Your task to perform on an android device: Go to Yahoo.com Image 0: 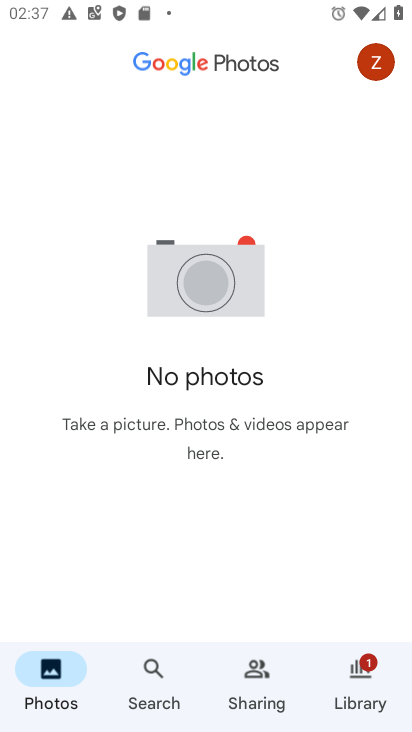
Step 0: press home button
Your task to perform on an android device: Go to Yahoo.com Image 1: 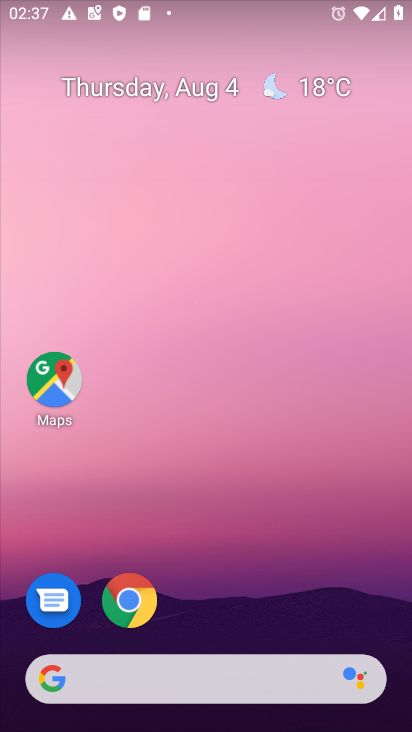
Step 1: click (126, 609)
Your task to perform on an android device: Go to Yahoo.com Image 2: 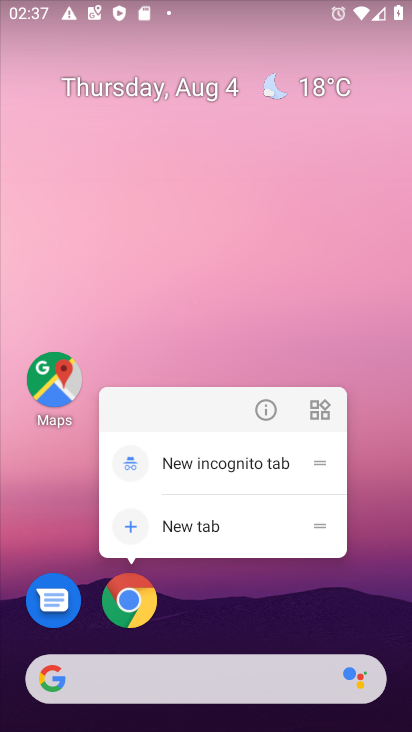
Step 2: click (134, 602)
Your task to perform on an android device: Go to Yahoo.com Image 3: 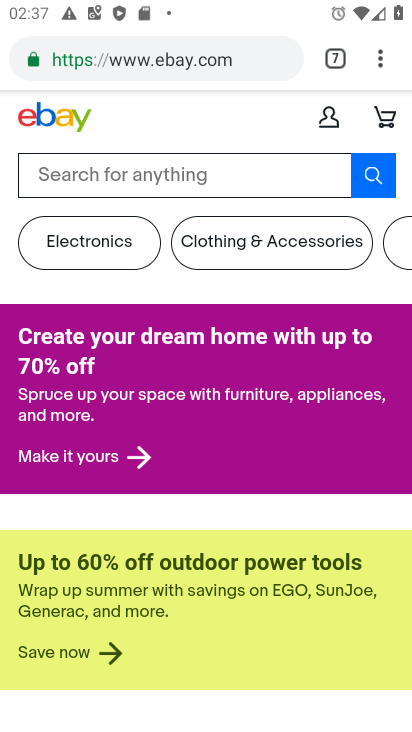
Step 3: drag from (383, 59) to (223, 188)
Your task to perform on an android device: Go to Yahoo.com Image 4: 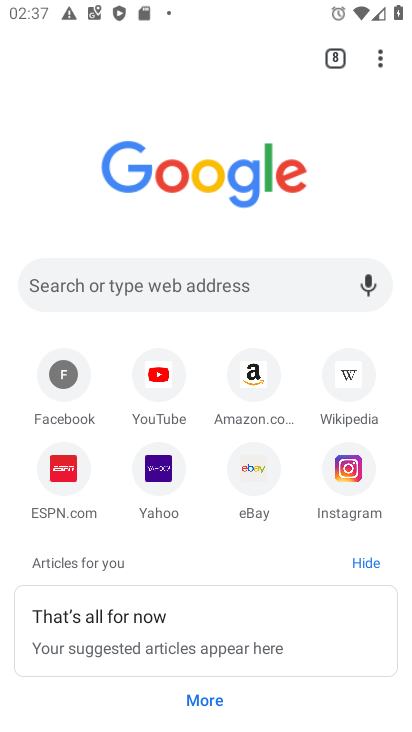
Step 4: click (159, 474)
Your task to perform on an android device: Go to Yahoo.com Image 5: 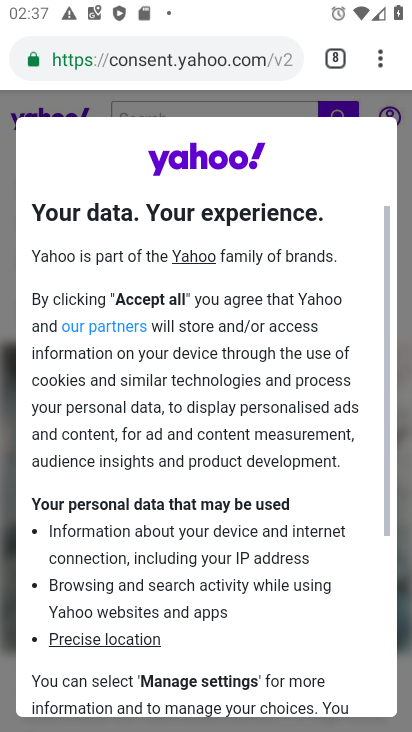
Step 5: drag from (237, 629) to (333, 199)
Your task to perform on an android device: Go to Yahoo.com Image 6: 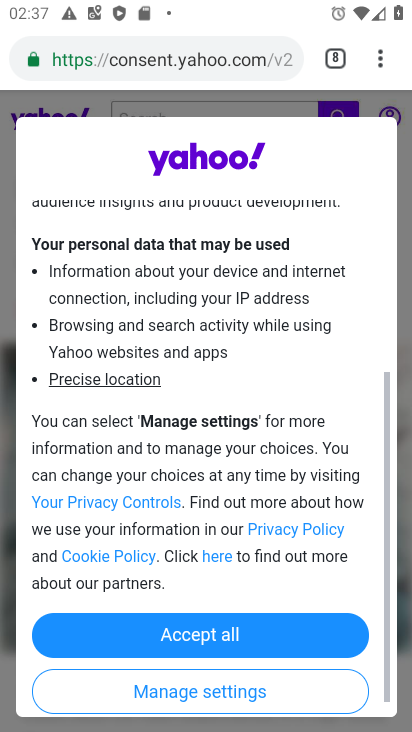
Step 6: click (231, 624)
Your task to perform on an android device: Go to Yahoo.com Image 7: 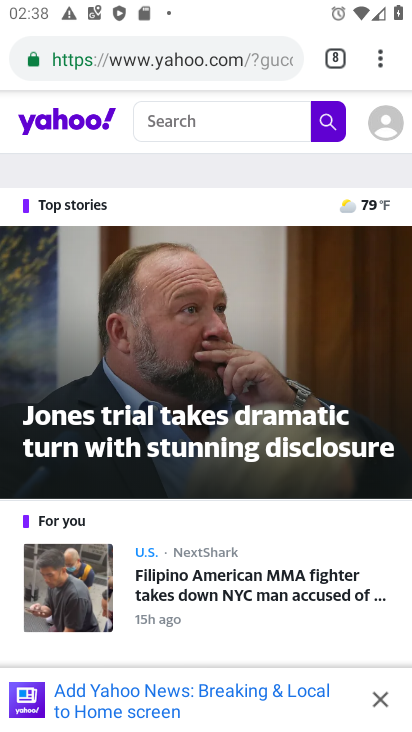
Step 7: task complete